Your task to perform on an android device: Open calendar and show me the second week of next month Image 0: 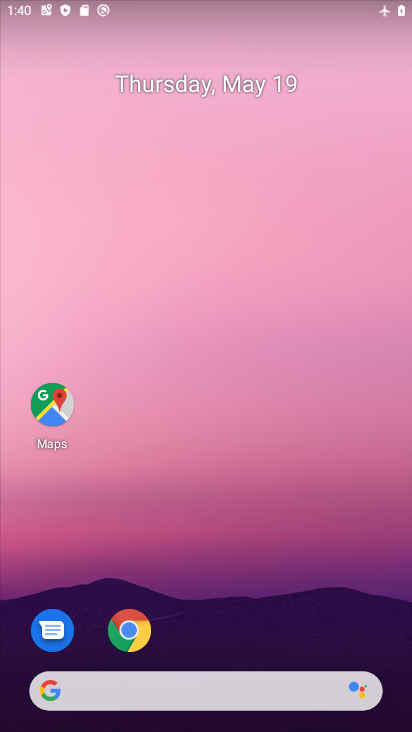
Step 0: drag from (209, 661) to (175, 34)
Your task to perform on an android device: Open calendar and show me the second week of next month Image 1: 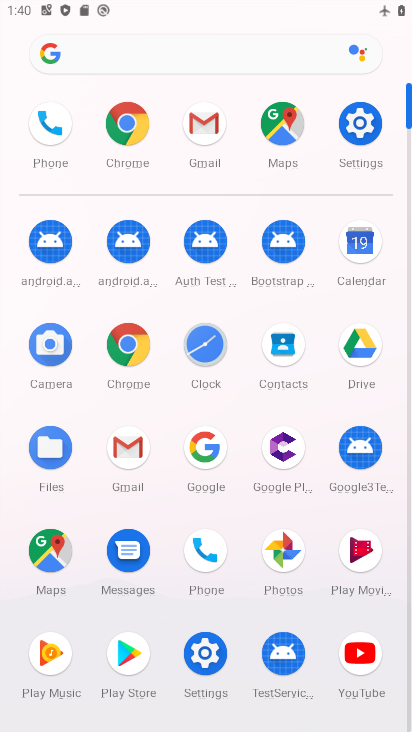
Step 1: click (347, 241)
Your task to perform on an android device: Open calendar and show me the second week of next month Image 2: 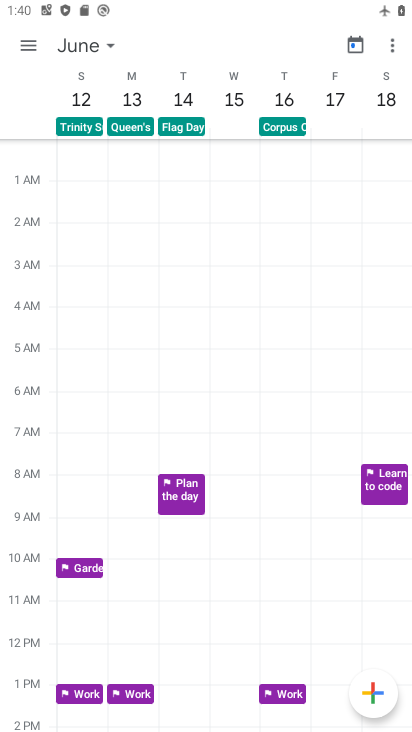
Step 2: task complete